Your task to perform on an android device: Open eBay Image 0: 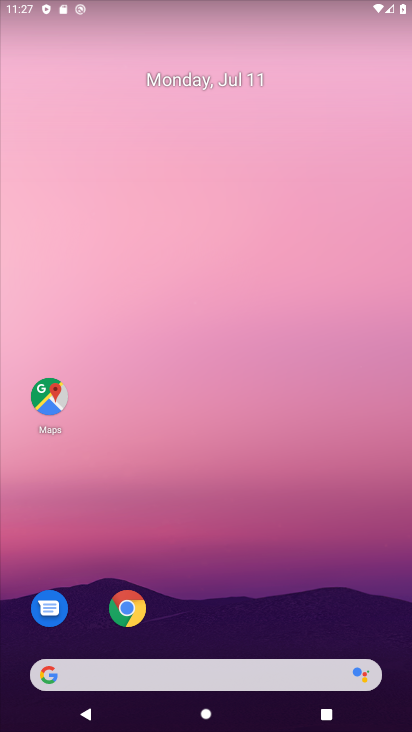
Step 0: click (125, 612)
Your task to perform on an android device: Open eBay Image 1: 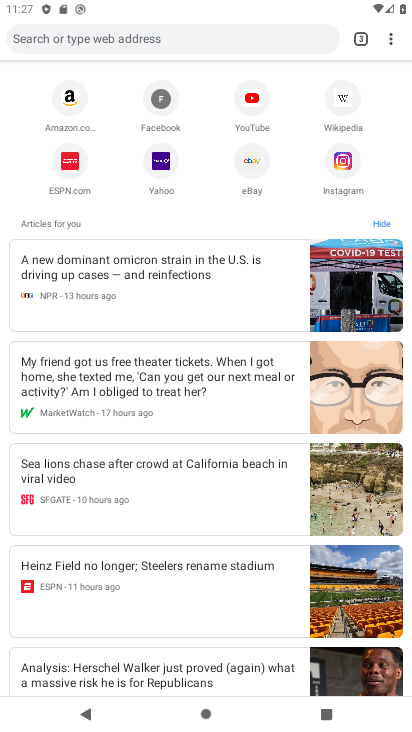
Step 1: click (252, 161)
Your task to perform on an android device: Open eBay Image 2: 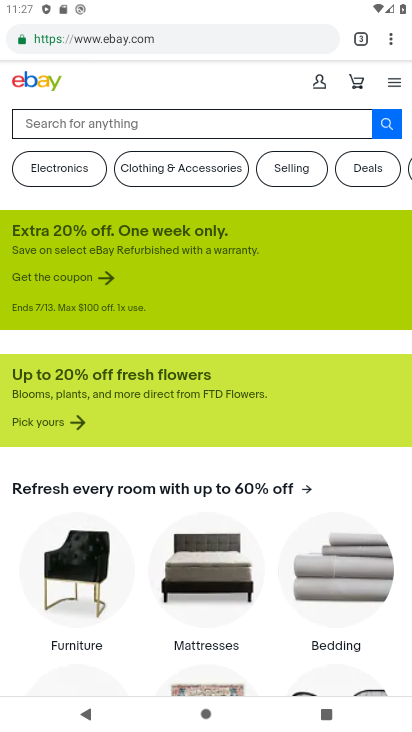
Step 2: task complete